Your task to perform on an android device: Open accessibility settings Image 0: 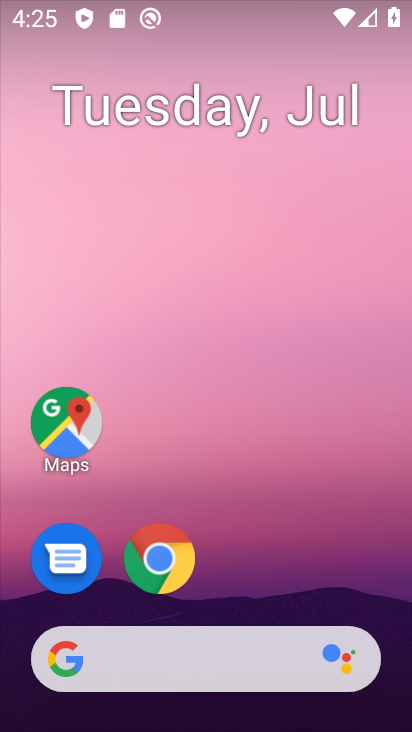
Step 0: drag from (210, 598) to (250, 122)
Your task to perform on an android device: Open accessibility settings Image 1: 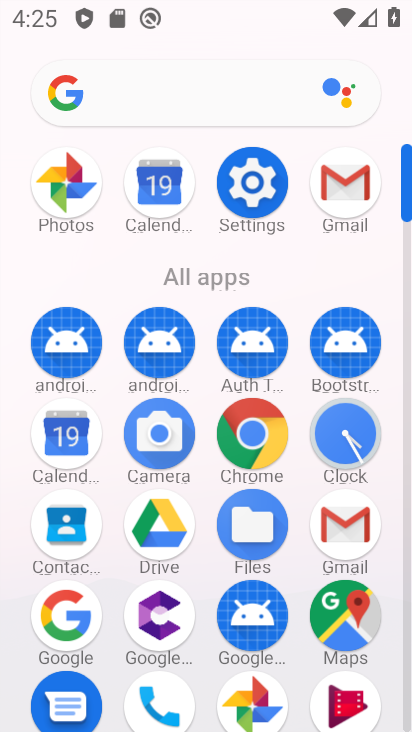
Step 1: click (270, 196)
Your task to perform on an android device: Open accessibility settings Image 2: 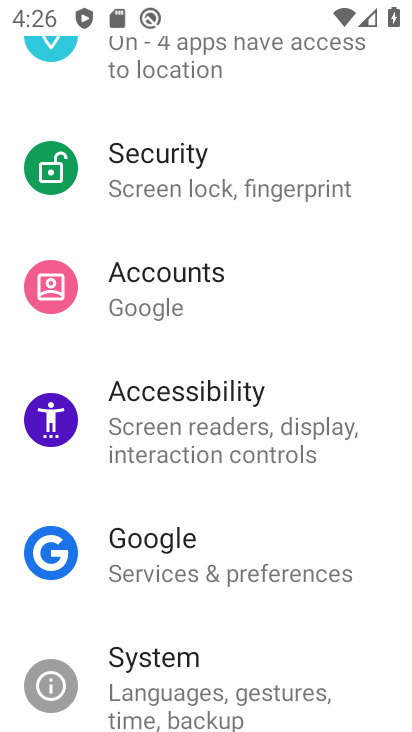
Step 2: drag from (197, 567) to (202, 469)
Your task to perform on an android device: Open accessibility settings Image 3: 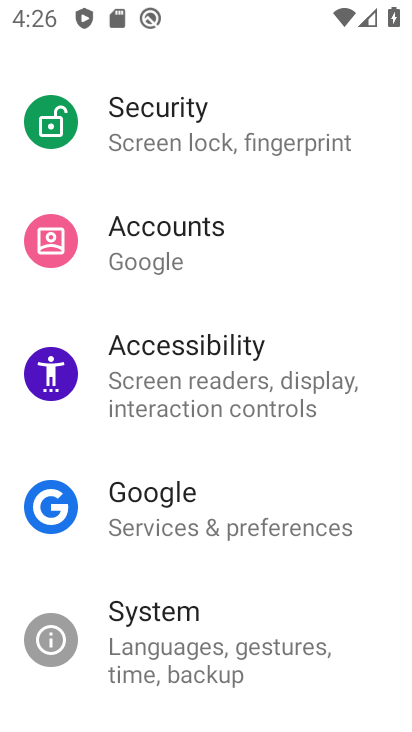
Step 3: click (249, 392)
Your task to perform on an android device: Open accessibility settings Image 4: 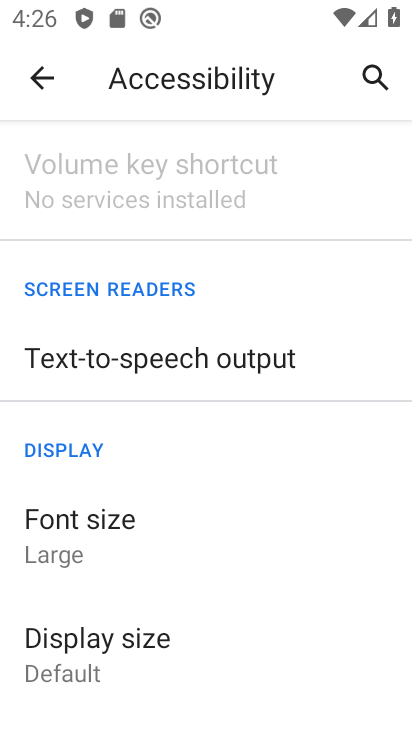
Step 4: task complete